Your task to perform on an android device: Show me productivity apps on the Play Store Image 0: 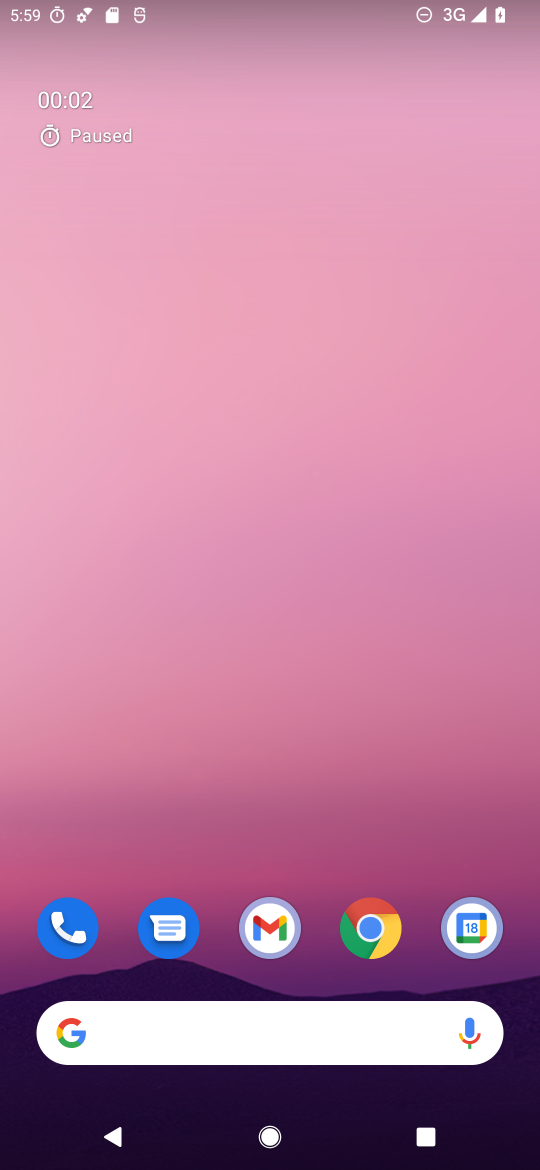
Step 0: drag from (325, 879) to (413, 108)
Your task to perform on an android device: Show me productivity apps on the Play Store Image 1: 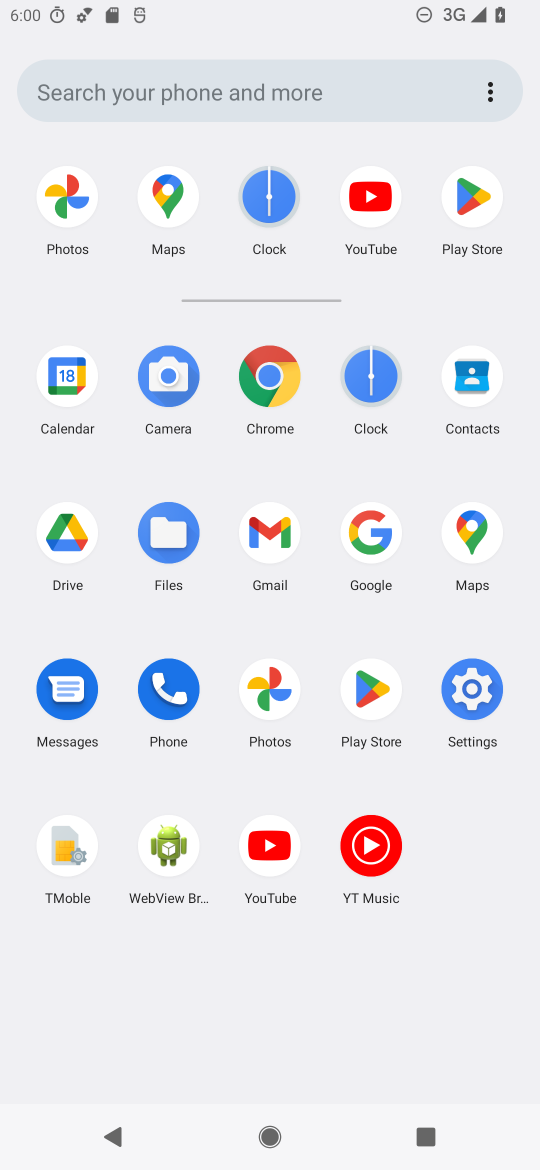
Step 1: click (371, 680)
Your task to perform on an android device: Show me productivity apps on the Play Store Image 2: 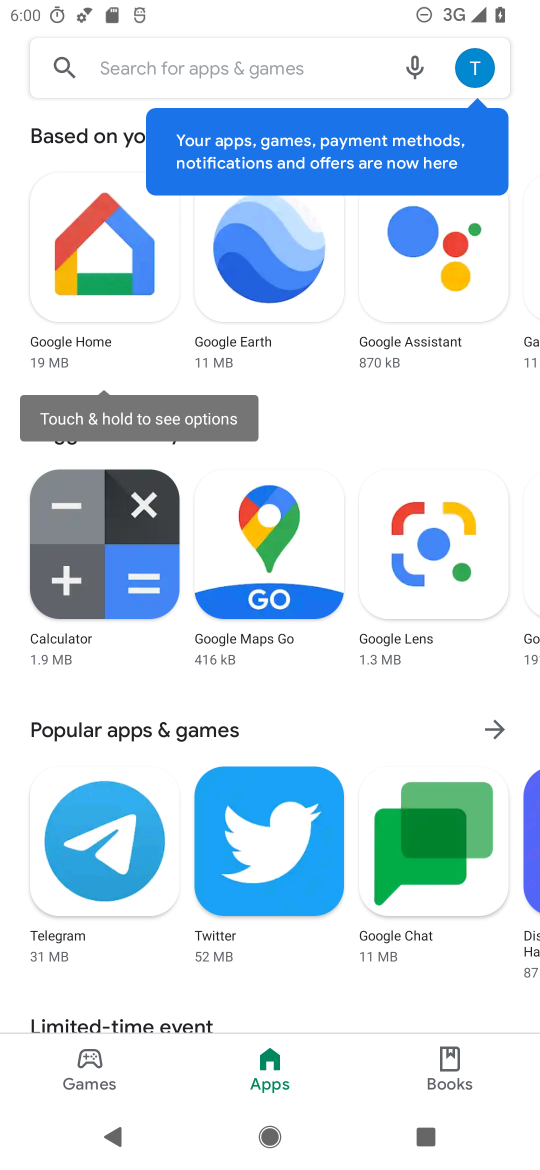
Step 2: task complete